Your task to perform on an android device: Go to display settings Image 0: 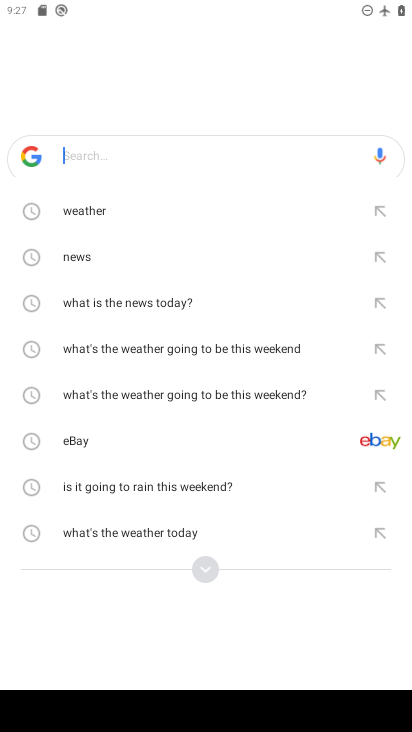
Step 0: press back button
Your task to perform on an android device: Go to display settings Image 1: 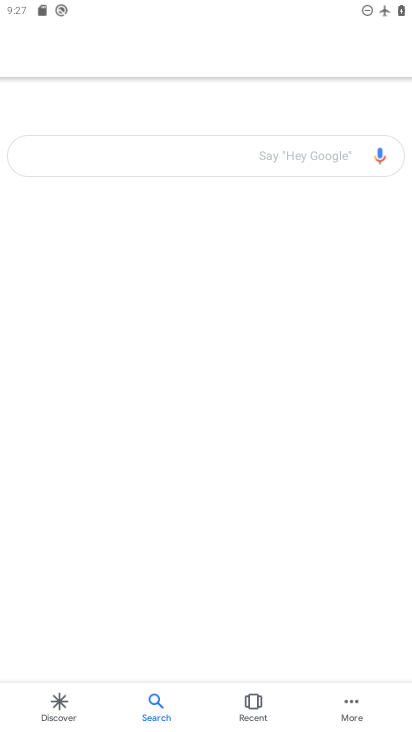
Step 1: press home button
Your task to perform on an android device: Go to display settings Image 2: 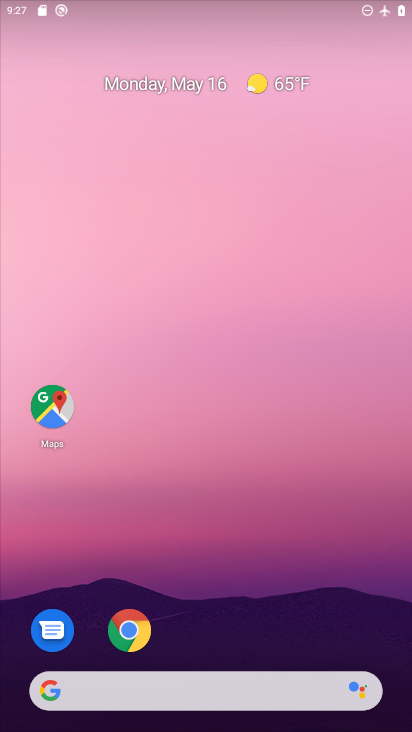
Step 2: drag from (195, 630) to (195, 220)
Your task to perform on an android device: Go to display settings Image 3: 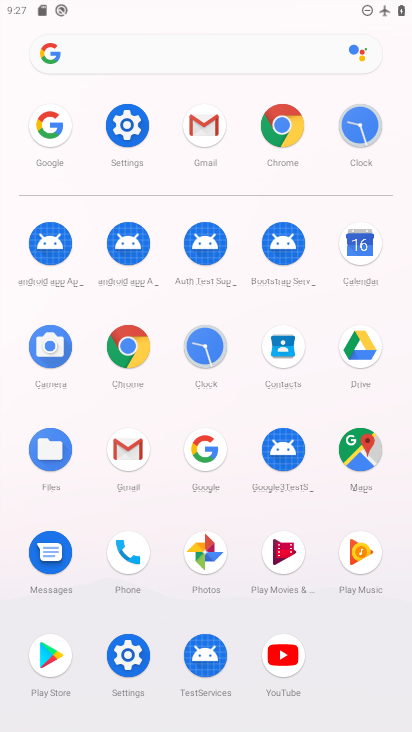
Step 3: click (130, 143)
Your task to perform on an android device: Go to display settings Image 4: 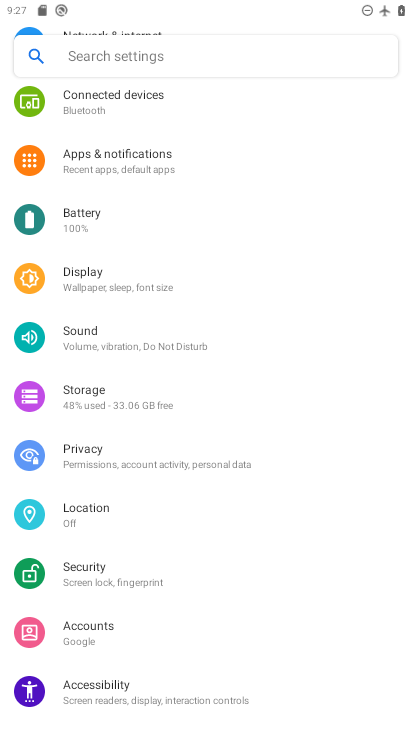
Step 4: click (122, 275)
Your task to perform on an android device: Go to display settings Image 5: 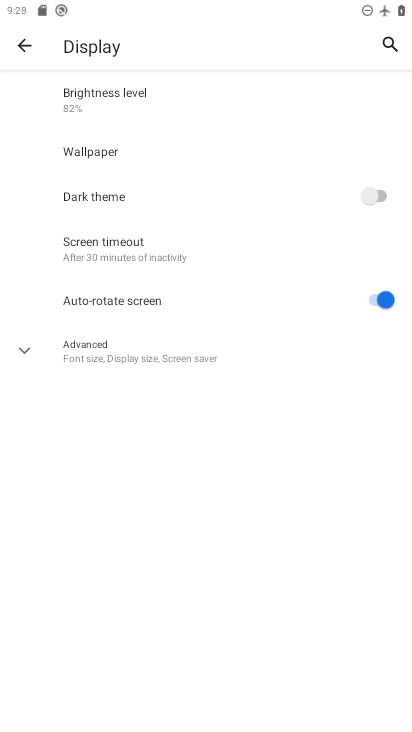
Step 5: task complete